Your task to perform on an android device: open wifi settings Image 0: 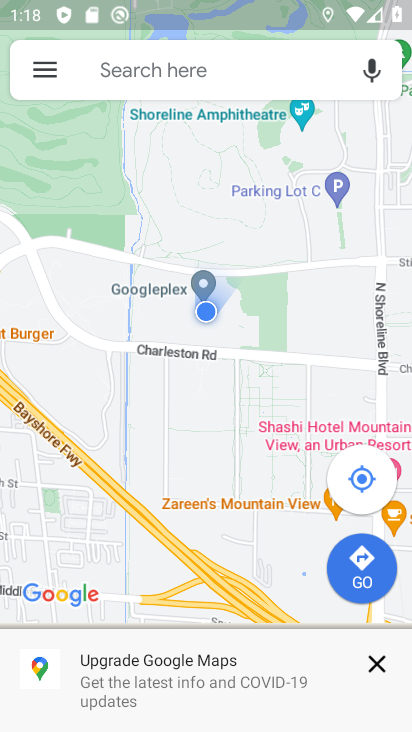
Step 0: press home button
Your task to perform on an android device: open wifi settings Image 1: 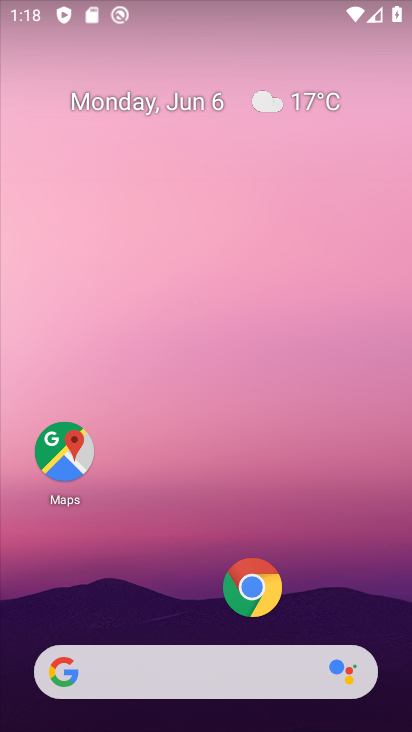
Step 1: drag from (185, 576) to (231, 6)
Your task to perform on an android device: open wifi settings Image 2: 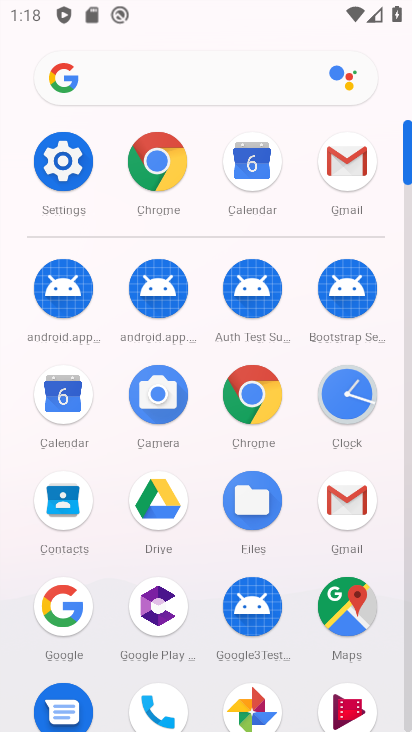
Step 2: click (77, 173)
Your task to perform on an android device: open wifi settings Image 3: 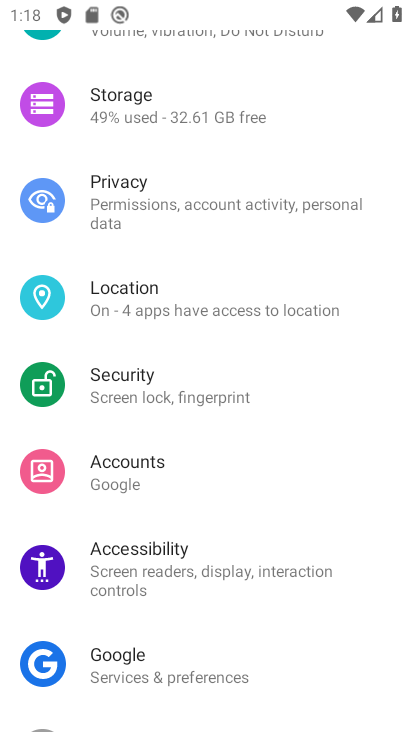
Step 3: drag from (266, 155) to (253, 695)
Your task to perform on an android device: open wifi settings Image 4: 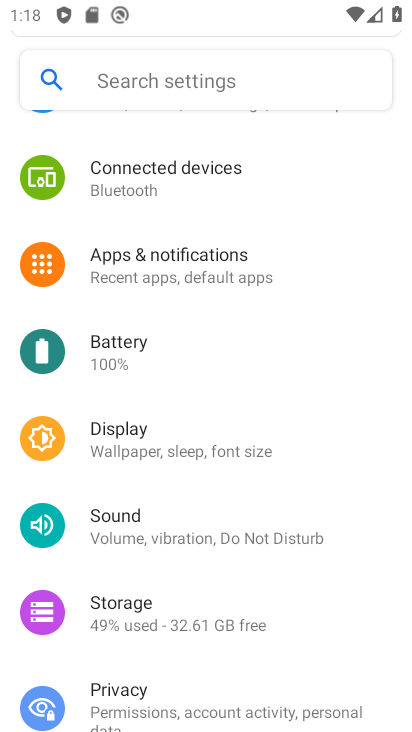
Step 4: drag from (256, 228) to (182, 667)
Your task to perform on an android device: open wifi settings Image 5: 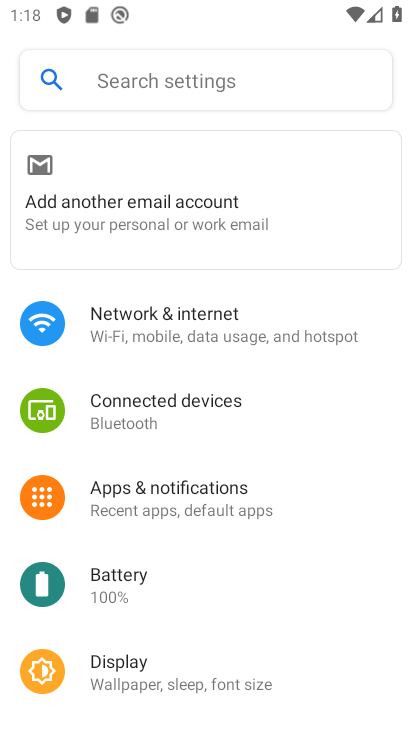
Step 5: click (189, 315)
Your task to perform on an android device: open wifi settings Image 6: 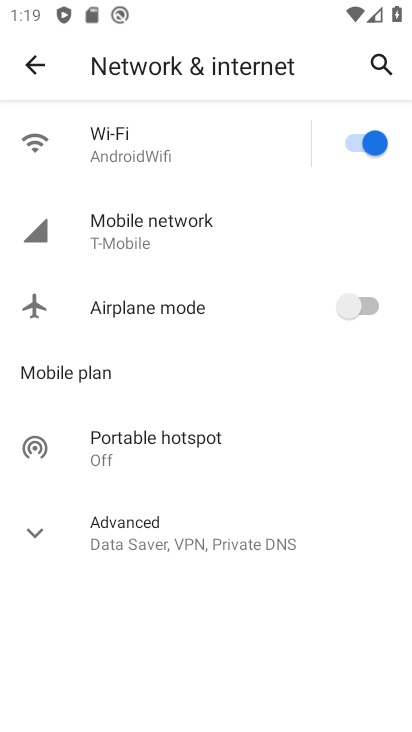
Step 6: click (168, 132)
Your task to perform on an android device: open wifi settings Image 7: 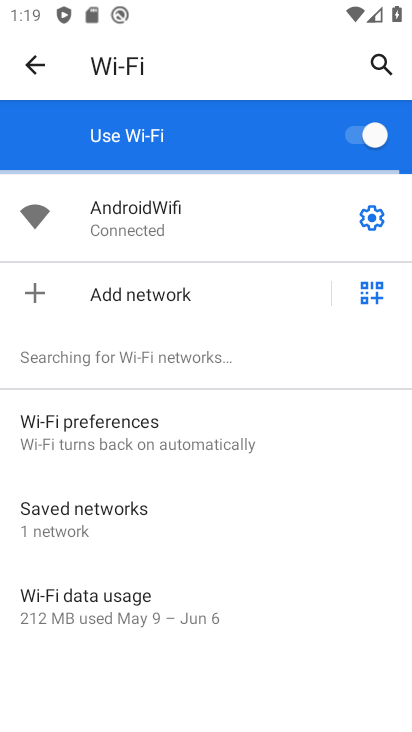
Step 7: task complete